Your task to perform on an android device: turn off notifications in google photos Image 0: 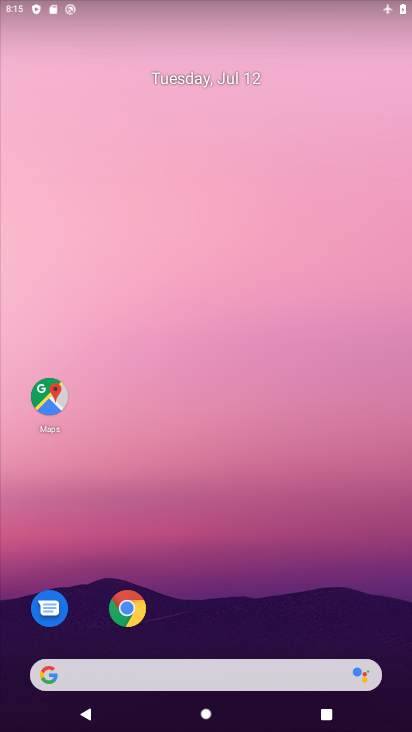
Step 0: drag from (228, 625) to (272, 98)
Your task to perform on an android device: turn off notifications in google photos Image 1: 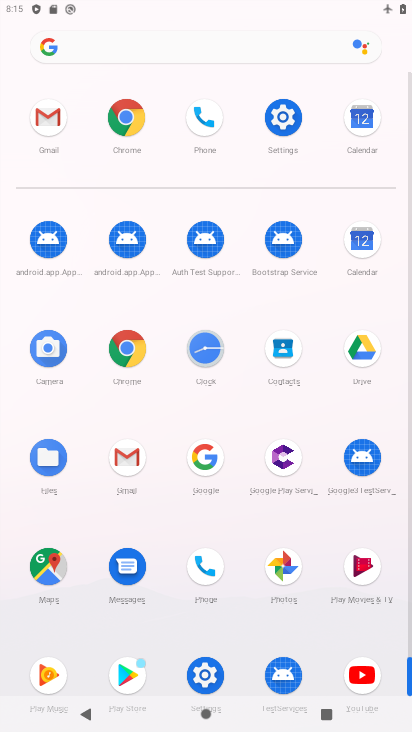
Step 1: click (276, 578)
Your task to perform on an android device: turn off notifications in google photos Image 2: 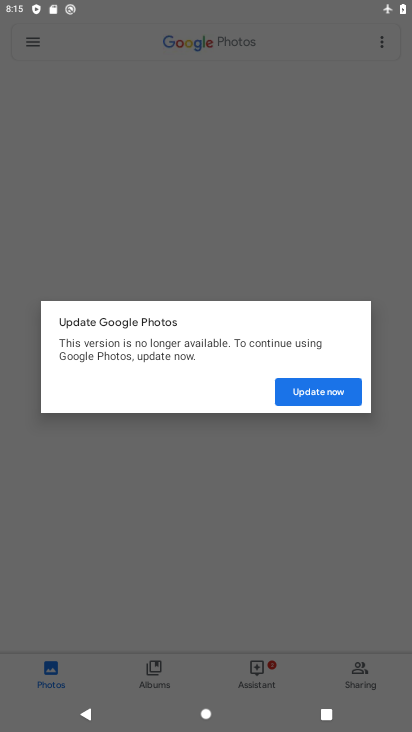
Step 2: press home button
Your task to perform on an android device: turn off notifications in google photos Image 3: 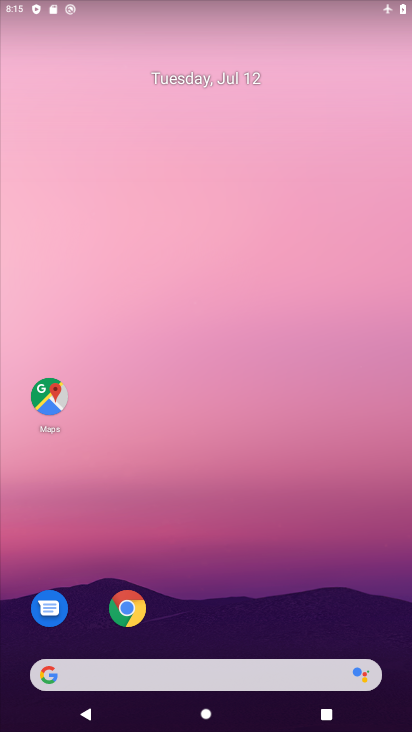
Step 3: drag from (203, 649) to (408, 628)
Your task to perform on an android device: turn off notifications in google photos Image 4: 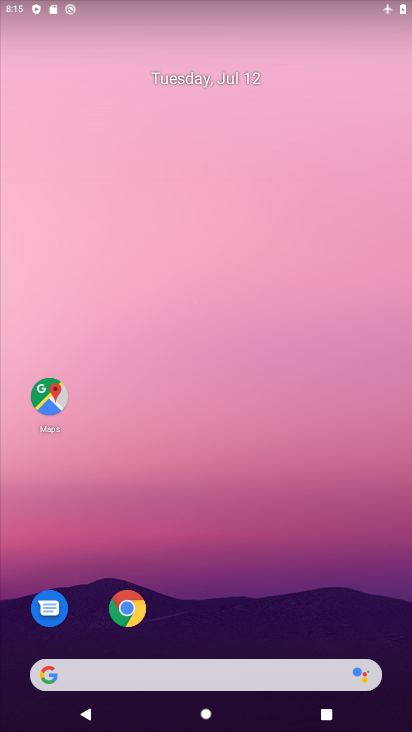
Step 4: drag from (195, 648) to (391, 22)
Your task to perform on an android device: turn off notifications in google photos Image 5: 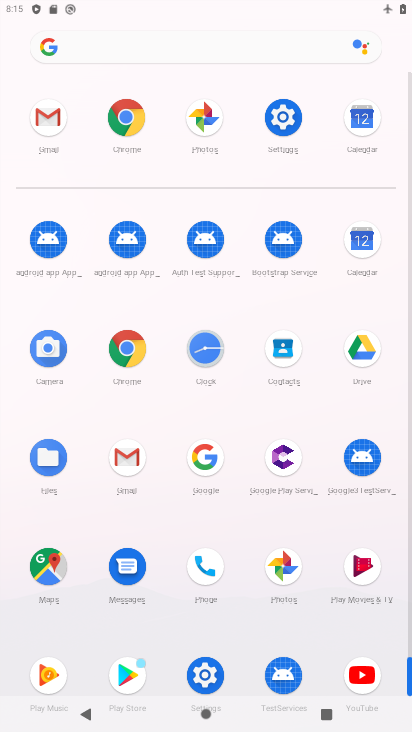
Step 5: click (297, 569)
Your task to perform on an android device: turn off notifications in google photos Image 6: 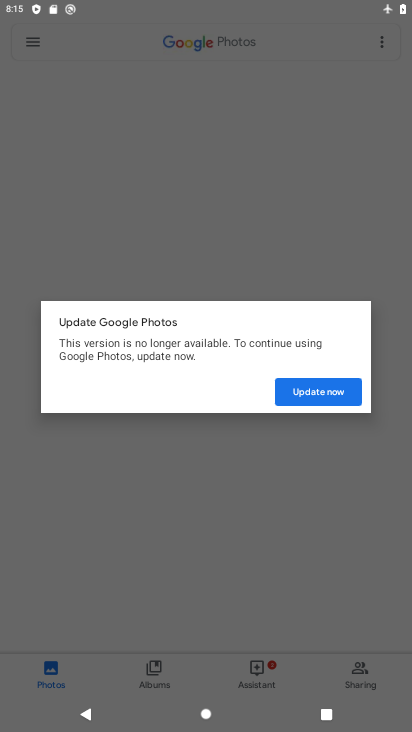
Step 6: click (333, 530)
Your task to perform on an android device: turn off notifications in google photos Image 7: 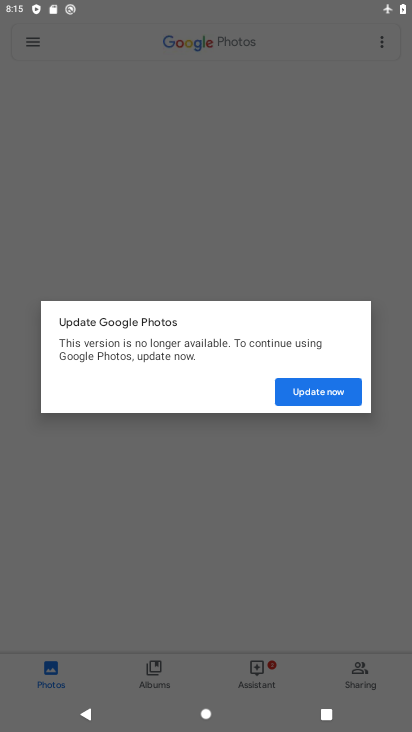
Step 7: click (322, 413)
Your task to perform on an android device: turn off notifications in google photos Image 8: 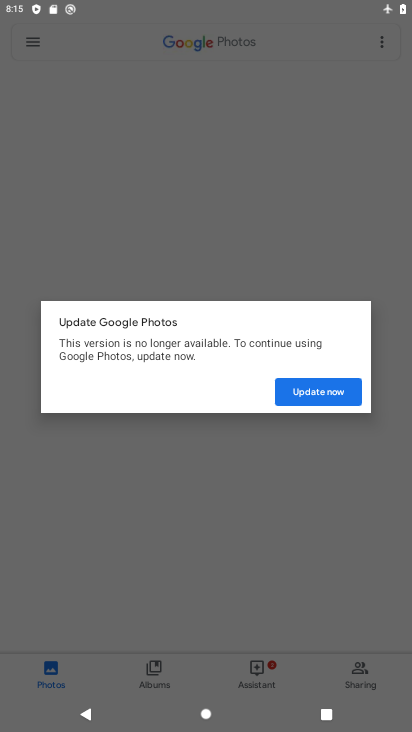
Step 8: click (316, 397)
Your task to perform on an android device: turn off notifications in google photos Image 9: 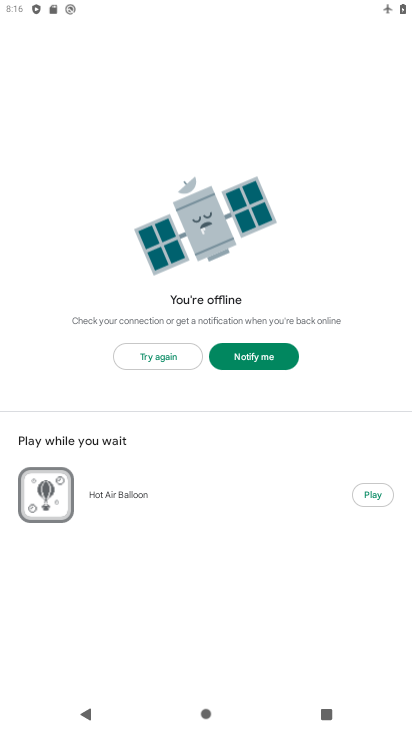
Step 9: click (182, 353)
Your task to perform on an android device: turn off notifications in google photos Image 10: 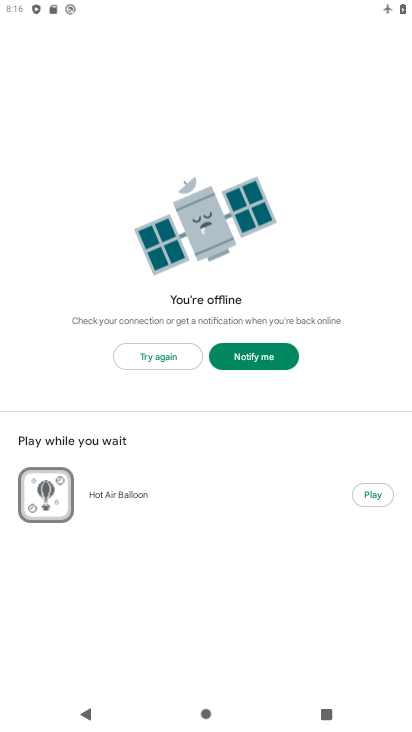
Step 10: task complete